Your task to perform on an android device: change alarm snooze length Image 0: 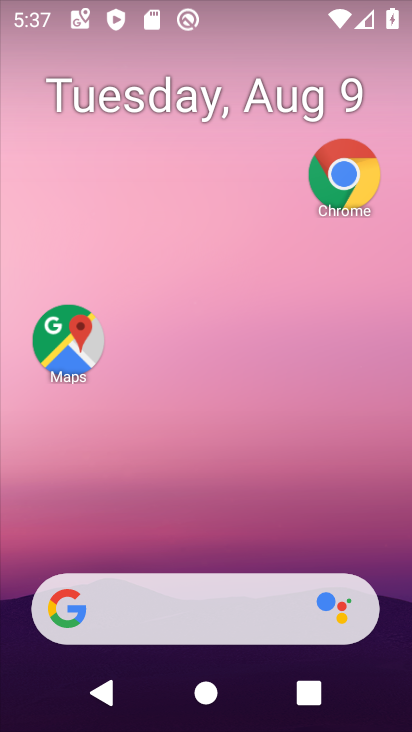
Step 0: drag from (209, 519) to (209, 473)
Your task to perform on an android device: change alarm snooze length Image 1: 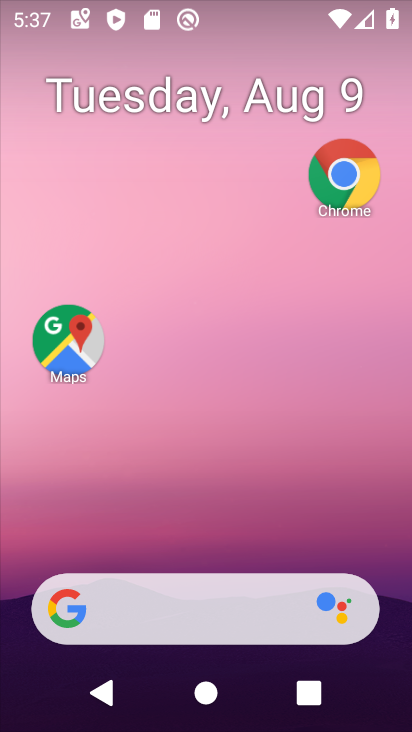
Step 1: drag from (183, 553) to (199, 350)
Your task to perform on an android device: change alarm snooze length Image 2: 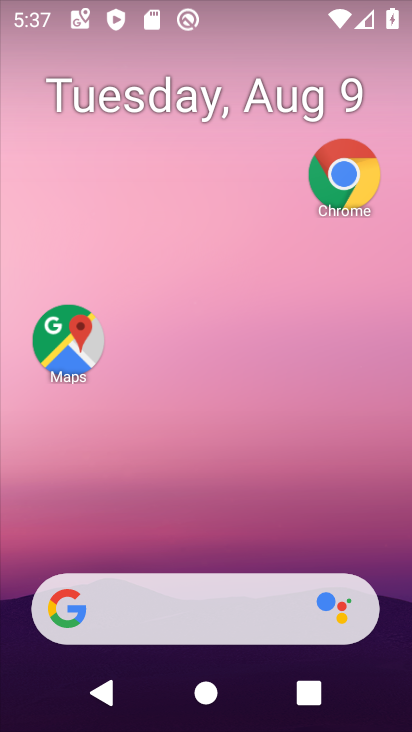
Step 2: drag from (205, 545) to (286, 140)
Your task to perform on an android device: change alarm snooze length Image 3: 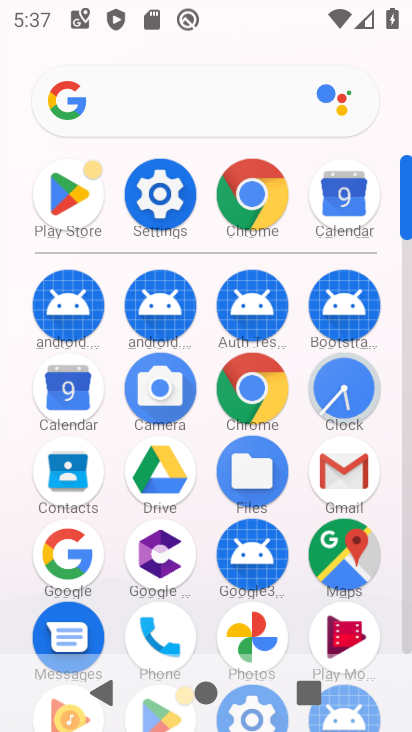
Step 3: drag from (208, 601) to (241, 327)
Your task to perform on an android device: change alarm snooze length Image 4: 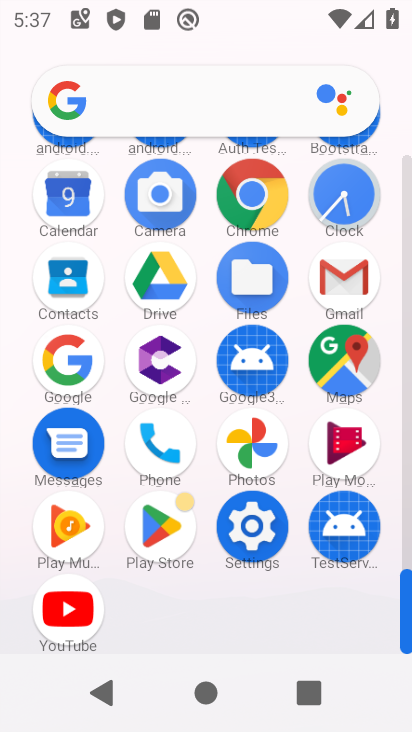
Step 4: drag from (226, 528) to (232, 457)
Your task to perform on an android device: change alarm snooze length Image 5: 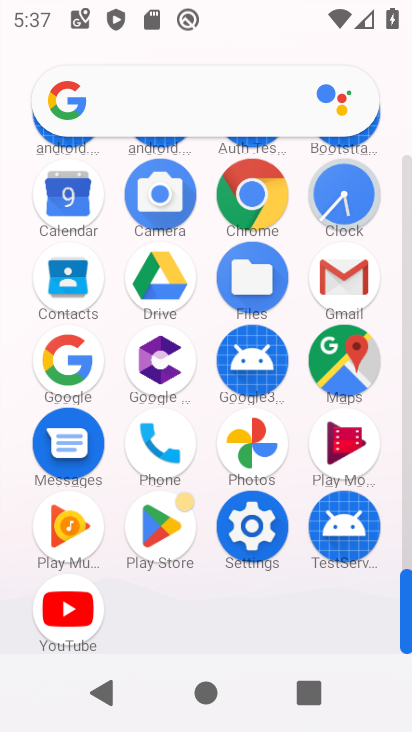
Step 5: drag from (218, 559) to (213, 233)
Your task to perform on an android device: change alarm snooze length Image 6: 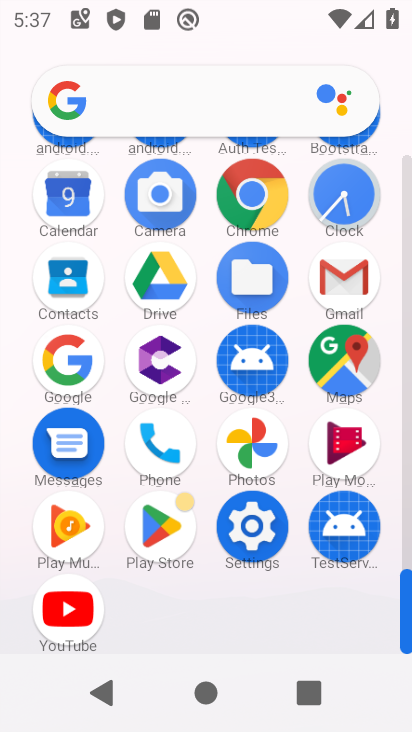
Step 6: click (349, 184)
Your task to perform on an android device: change alarm snooze length Image 7: 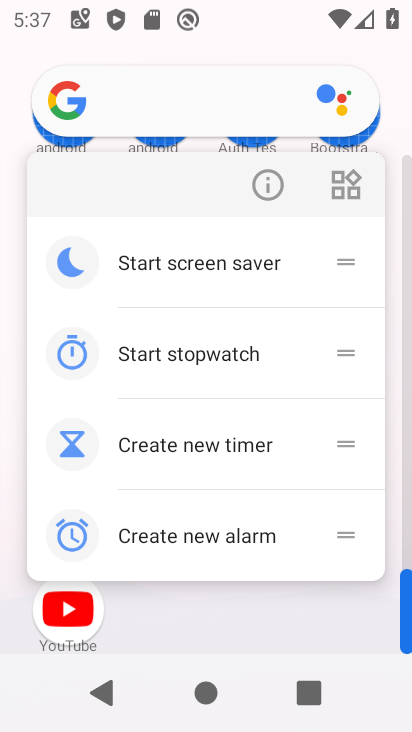
Step 7: click (262, 186)
Your task to perform on an android device: change alarm snooze length Image 8: 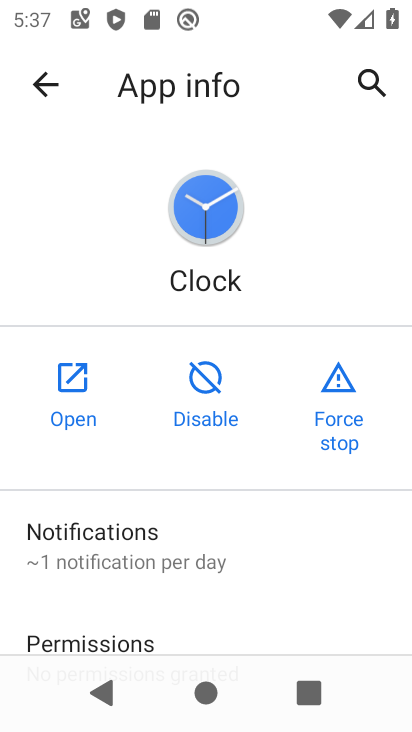
Step 8: click (73, 393)
Your task to perform on an android device: change alarm snooze length Image 9: 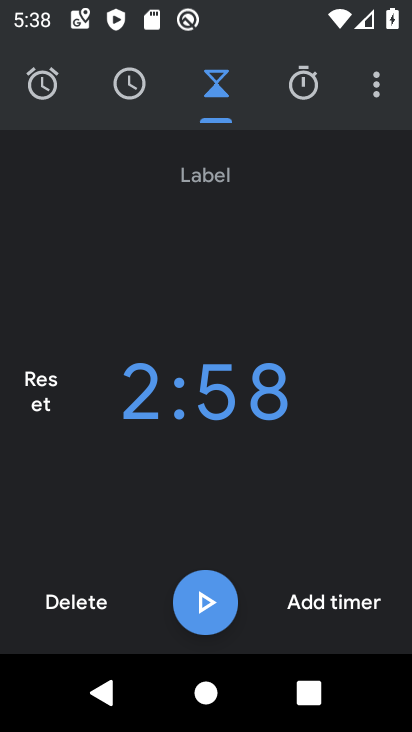
Step 9: click (378, 91)
Your task to perform on an android device: change alarm snooze length Image 10: 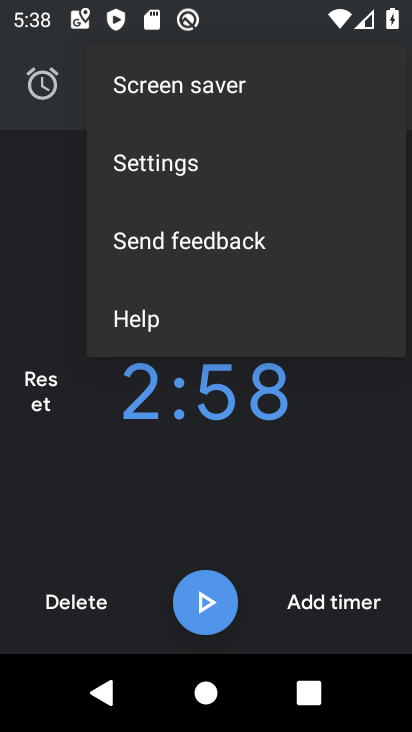
Step 10: click (212, 162)
Your task to perform on an android device: change alarm snooze length Image 11: 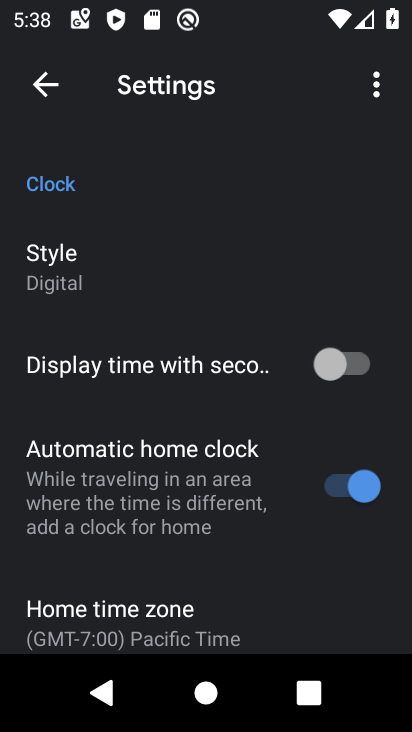
Step 11: drag from (165, 525) to (215, 266)
Your task to perform on an android device: change alarm snooze length Image 12: 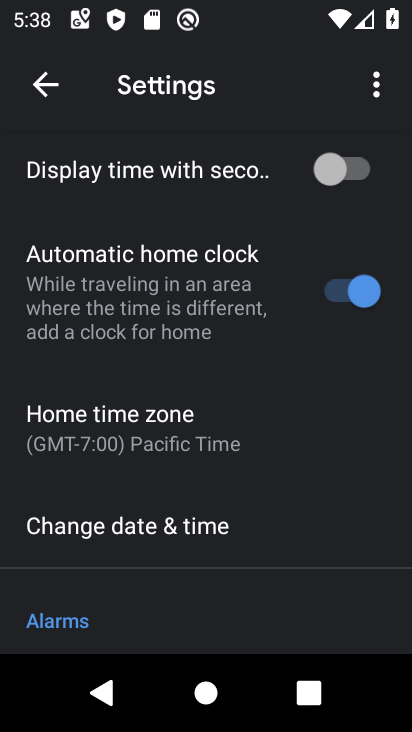
Step 12: drag from (192, 561) to (246, 193)
Your task to perform on an android device: change alarm snooze length Image 13: 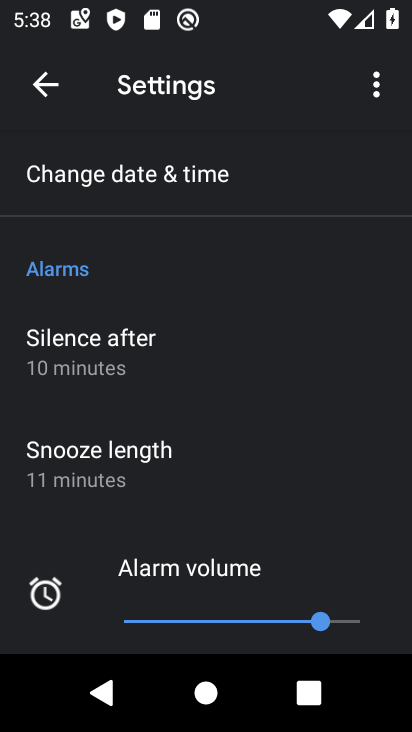
Step 13: drag from (207, 391) to (257, 679)
Your task to perform on an android device: change alarm snooze length Image 14: 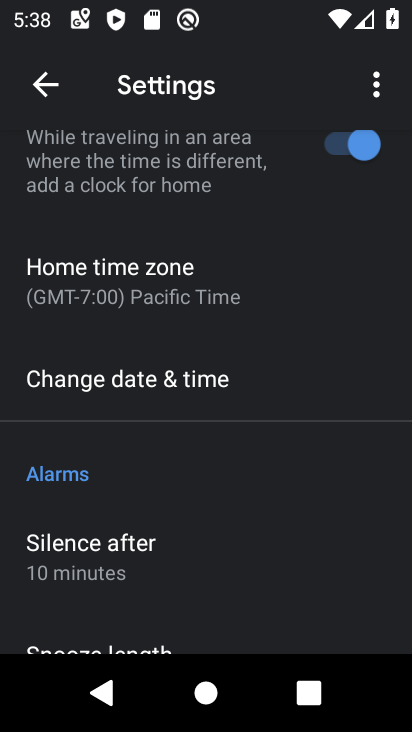
Step 14: drag from (242, 546) to (271, 369)
Your task to perform on an android device: change alarm snooze length Image 15: 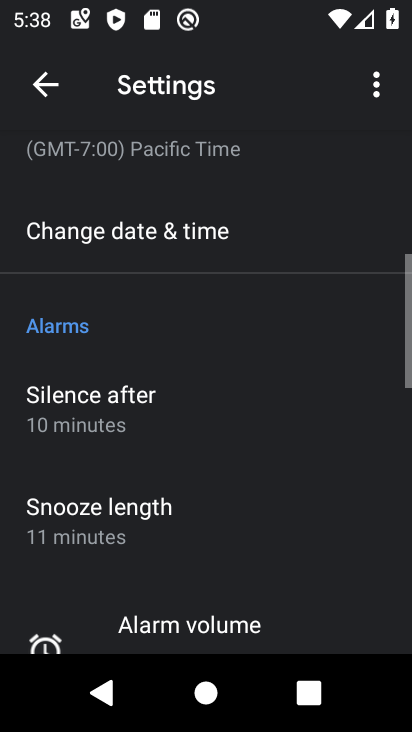
Step 15: drag from (228, 250) to (215, 650)
Your task to perform on an android device: change alarm snooze length Image 16: 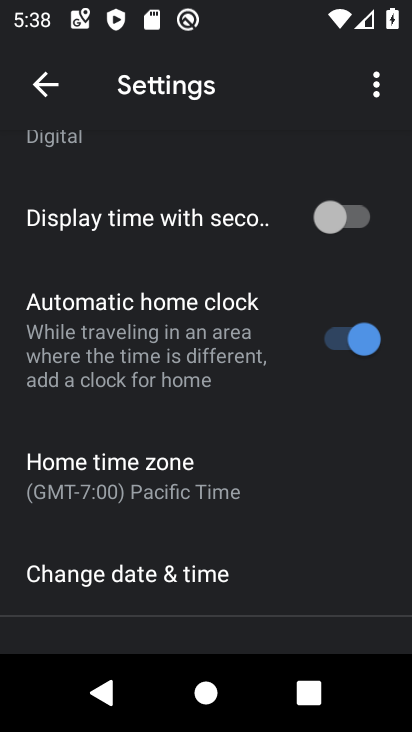
Step 16: drag from (196, 271) to (220, 553)
Your task to perform on an android device: change alarm snooze length Image 17: 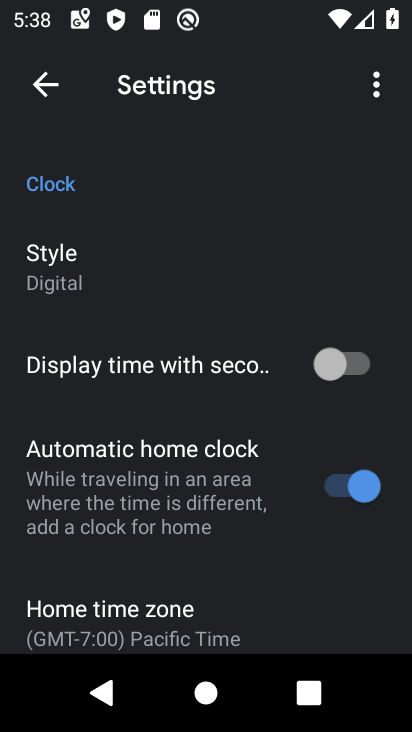
Step 17: drag from (195, 556) to (283, 166)
Your task to perform on an android device: change alarm snooze length Image 18: 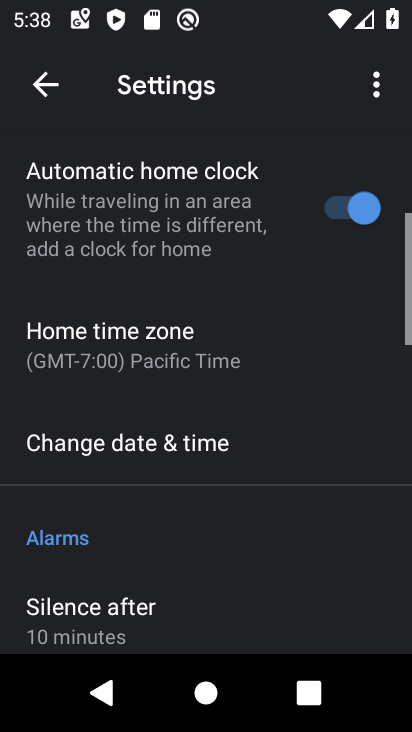
Step 18: drag from (245, 201) to (200, 651)
Your task to perform on an android device: change alarm snooze length Image 19: 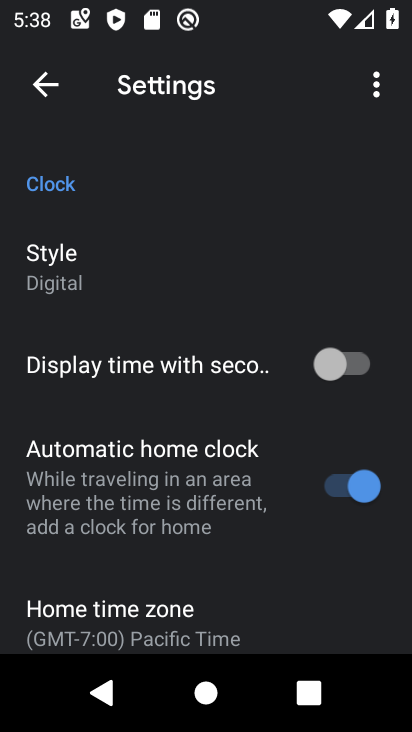
Step 19: drag from (185, 388) to (228, 558)
Your task to perform on an android device: change alarm snooze length Image 20: 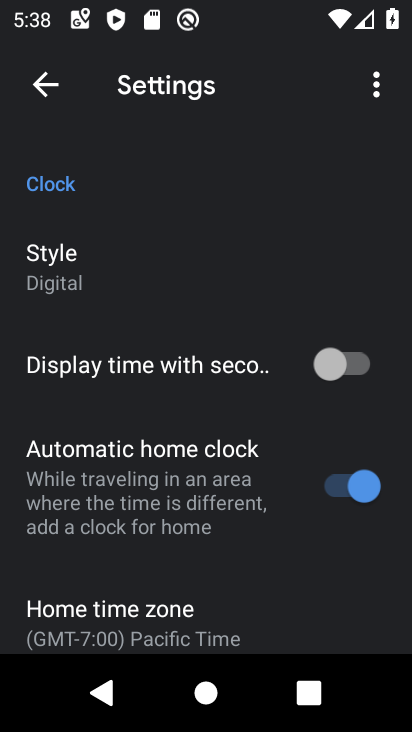
Step 20: drag from (181, 382) to (240, 730)
Your task to perform on an android device: change alarm snooze length Image 21: 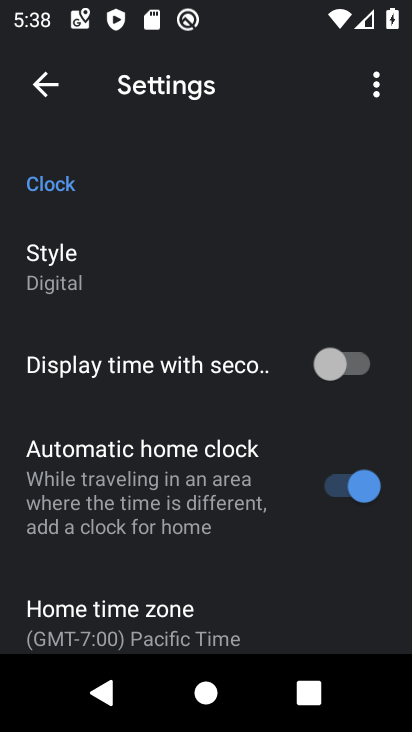
Step 21: drag from (199, 621) to (282, 331)
Your task to perform on an android device: change alarm snooze length Image 22: 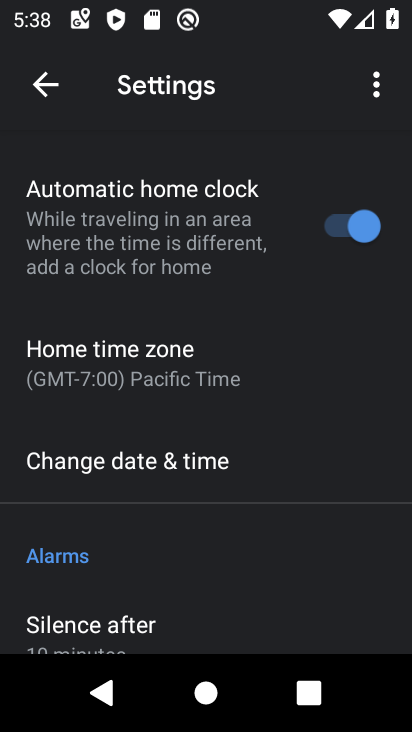
Step 22: drag from (212, 316) to (212, 691)
Your task to perform on an android device: change alarm snooze length Image 23: 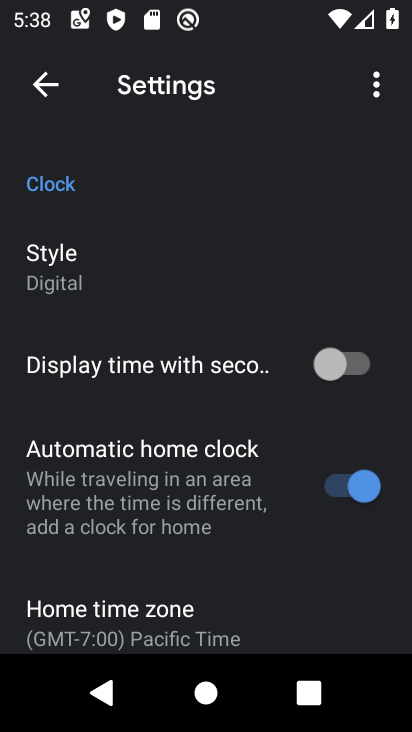
Step 23: drag from (211, 559) to (309, 181)
Your task to perform on an android device: change alarm snooze length Image 24: 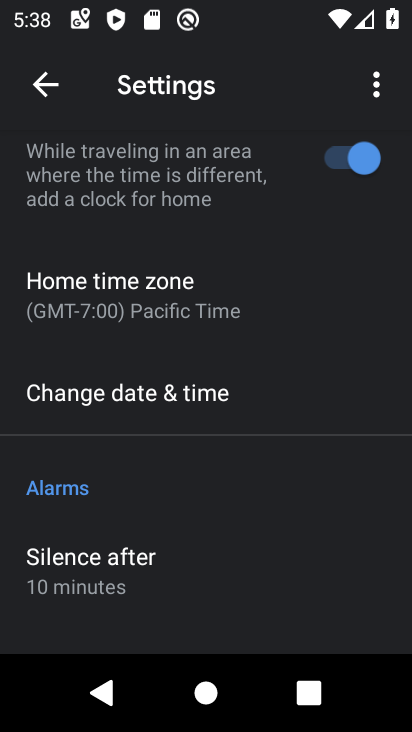
Step 24: drag from (220, 473) to (259, 366)
Your task to perform on an android device: change alarm snooze length Image 25: 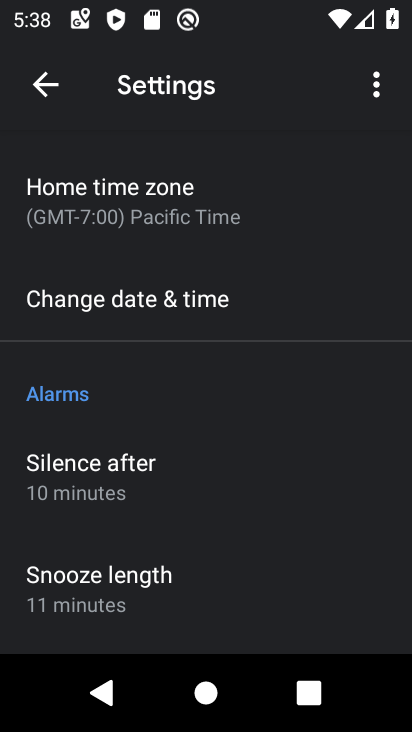
Step 25: drag from (159, 549) to (229, 358)
Your task to perform on an android device: change alarm snooze length Image 26: 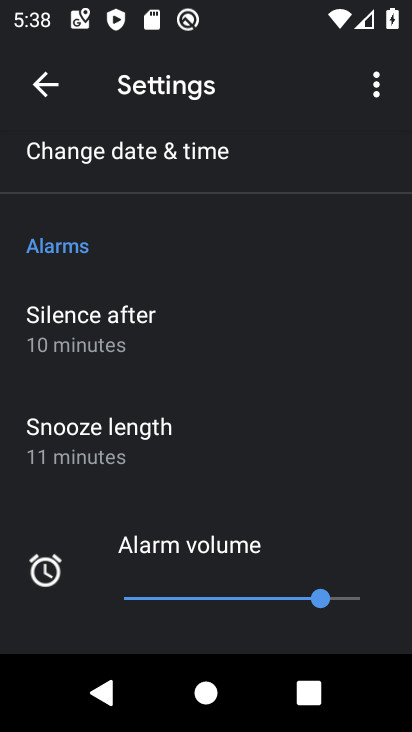
Step 26: click (156, 441)
Your task to perform on an android device: change alarm snooze length Image 27: 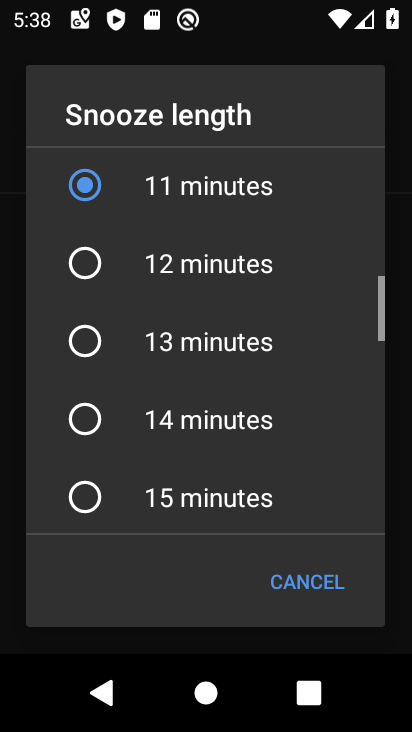
Step 27: drag from (182, 222) to (224, 643)
Your task to perform on an android device: change alarm snooze length Image 28: 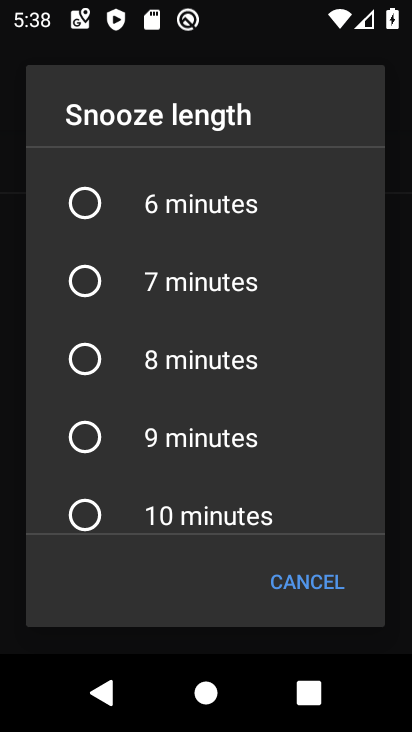
Step 28: drag from (166, 223) to (290, 644)
Your task to perform on an android device: change alarm snooze length Image 29: 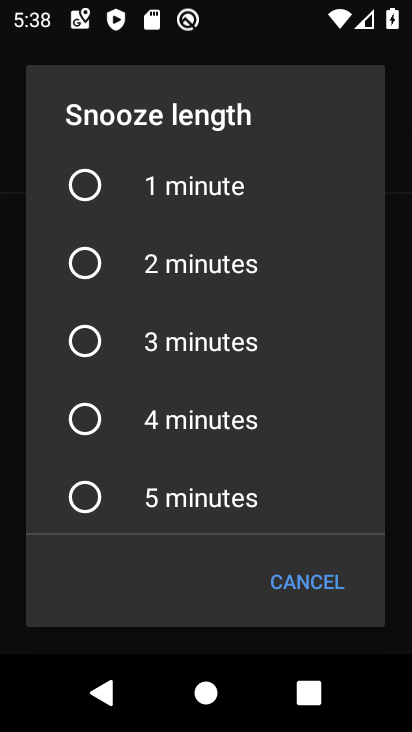
Step 29: click (138, 195)
Your task to perform on an android device: change alarm snooze length Image 30: 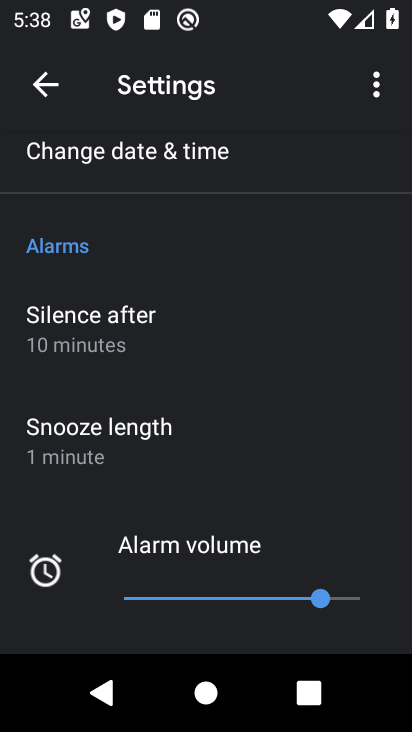
Step 30: task complete